Your task to perform on an android device: toggle priority inbox in the gmail app Image 0: 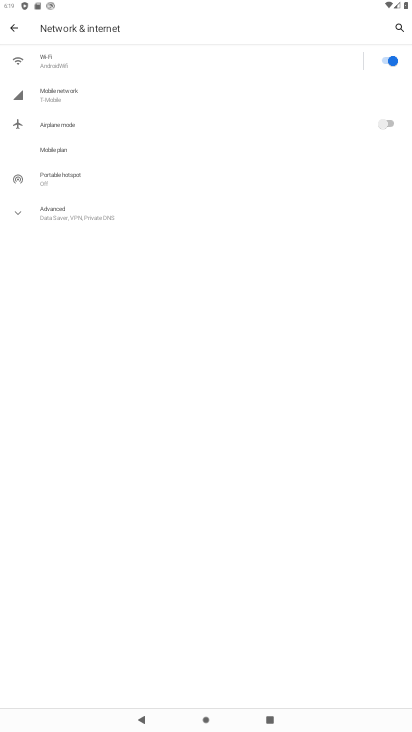
Step 0: press home button
Your task to perform on an android device: toggle priority inbox in the gmail app Image 1: 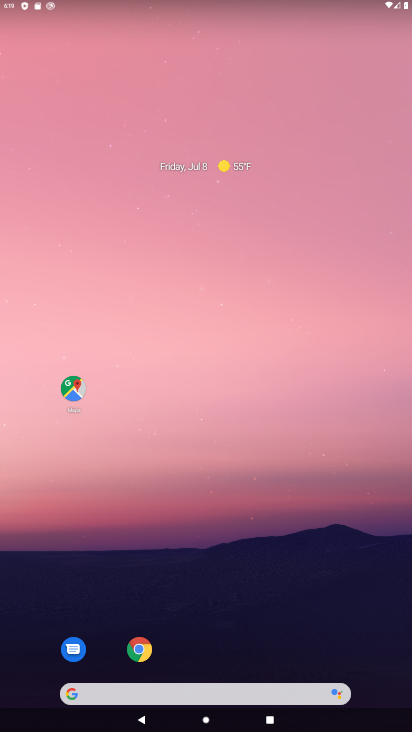
Step 1: drag from (259, 697) to (367, 0)
Your task to perform on an android device: toggle priority inbox in the gmail app Image 2: 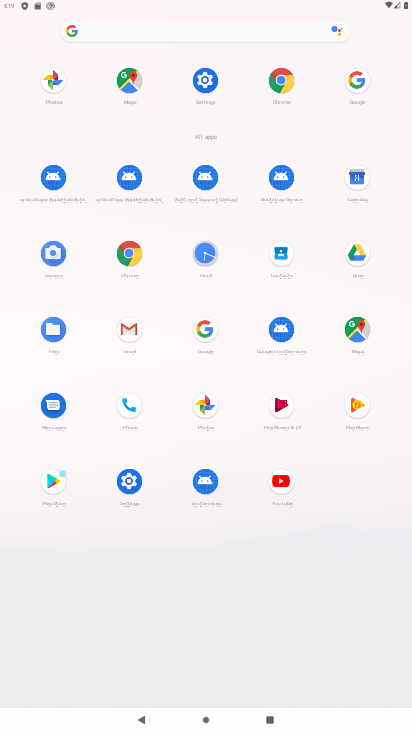
Step 2: click (119, 332)
Your task to perform on an android device: toggle priority inbox in the gmail app Image 3: 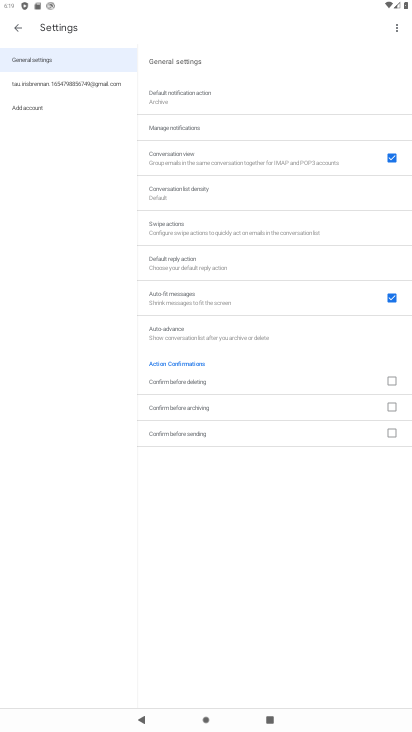
Step 3: click (73, 85)
Your task to perform on an android device: toggle priority inbox in the gmail app Image 4: 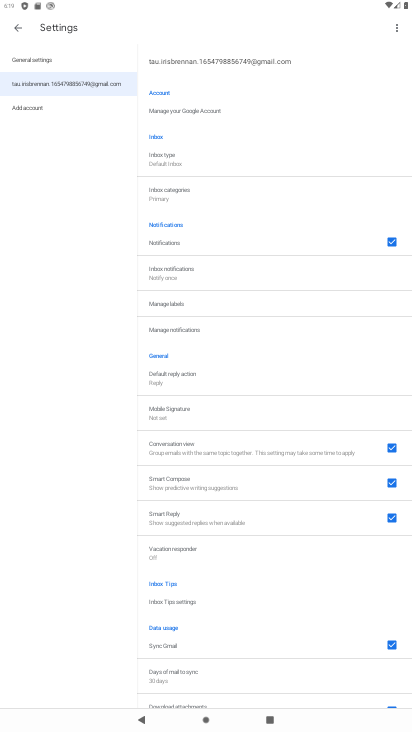
Step 4: click (155, 158)
Your task to perform on an android device: toggle priority inbox in the gmail app Image 5: 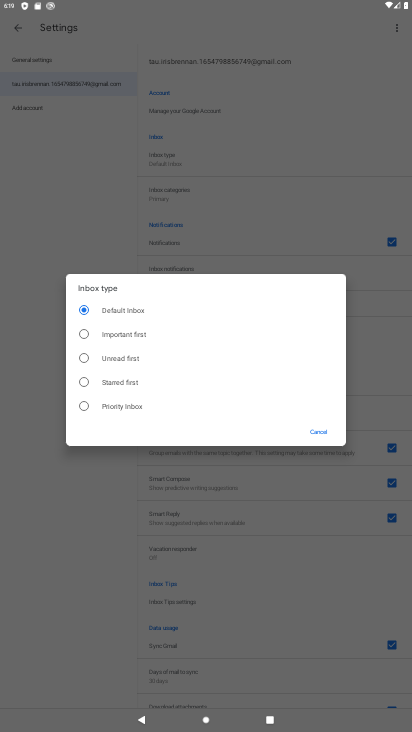
Step 5: click (97, 408)
Your task to perform on an android device: toggle priority inbox in the gmail app Image 6: 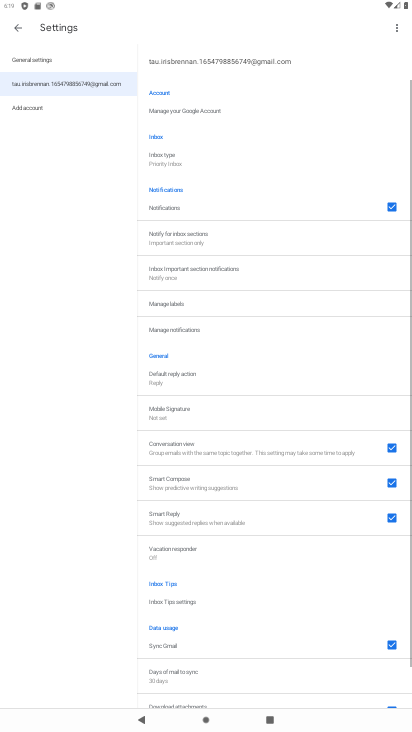
Step 6: task complete